Your task to perform on an android device: turn on airplane mode Image 0: 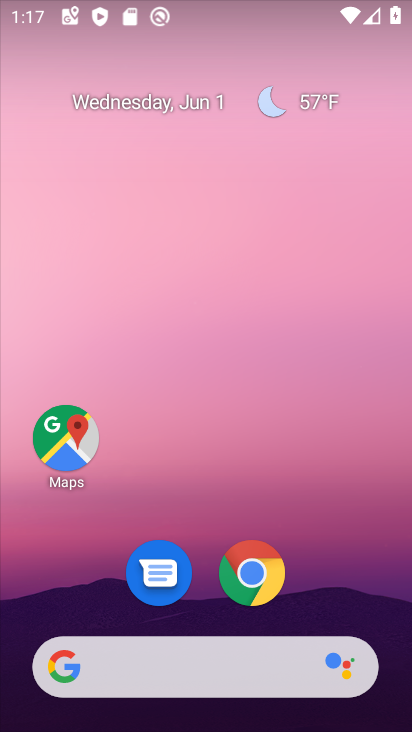
Step 0: drag from (206, 616) to (274, 100)
Your task to perform on an android device: turn on airplane mode Image 1: 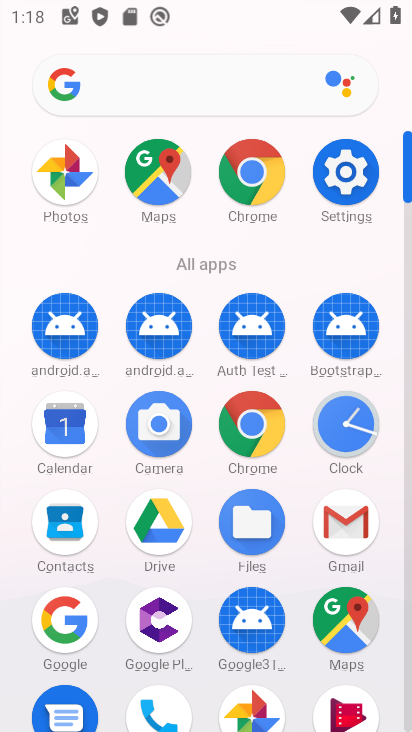
Step 1: click (343, 164)
Your task to perform on an android device: turn on airplane mode Image 2: 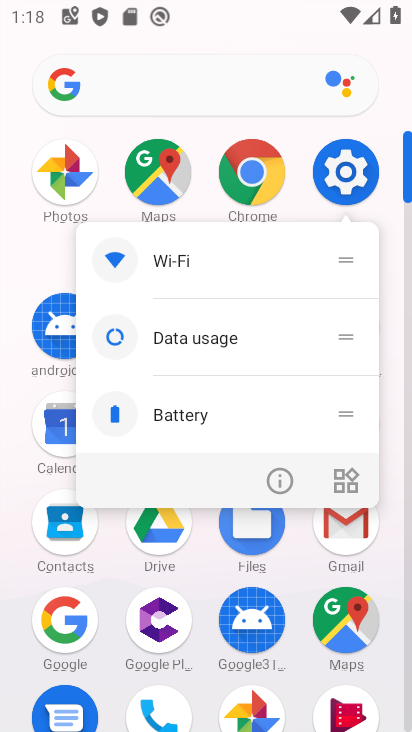
Step 2: click (290, 477)
Your task to perform on an android device: turn on airplane mode Image 3: 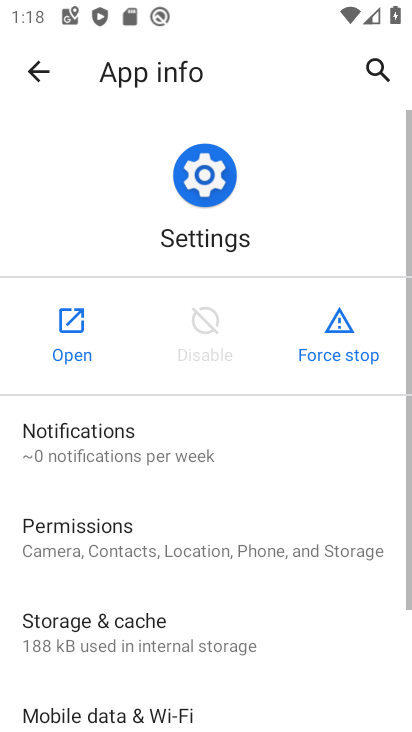
Step 3: click (76, 308)
Your task to perform on an android device: turn on airplane mode Image 4: 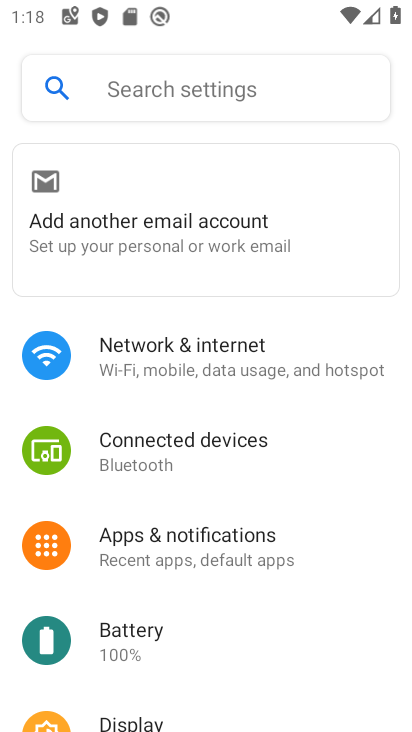
Step 4: click (167, 384)
Your task to perform on an android device: turn on airplane mode Image 5: 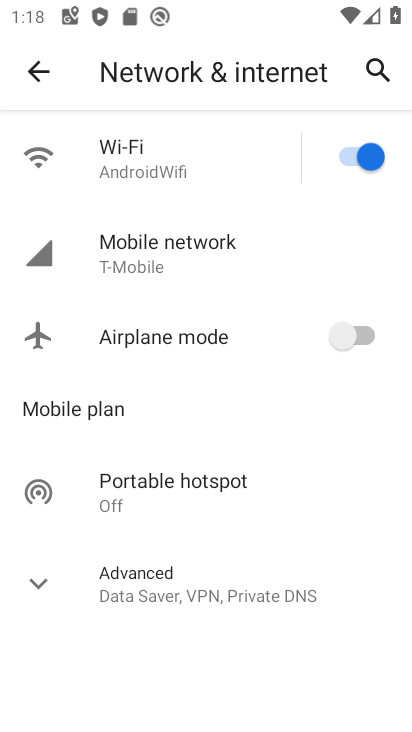
Step 5: click (170, 343)
Your task to perform on an android device: turn on airplane mode Image 6: 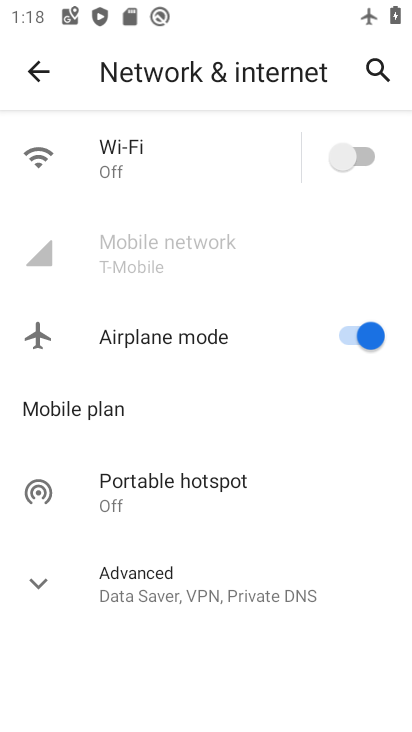
Step 6: task complete